Your task to perform on an android device: Do I have any events tomorrow? Image 0: 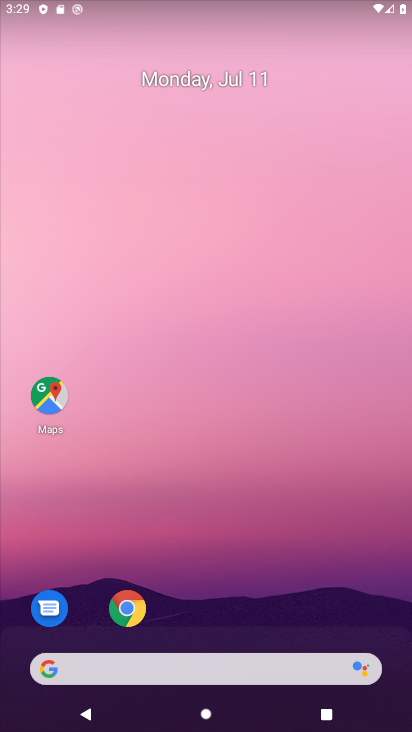
Step 0: drag from (245, 723) to (215, 85)
Your task to perform on an android device: Do I have any events tomorrow? Image 1: 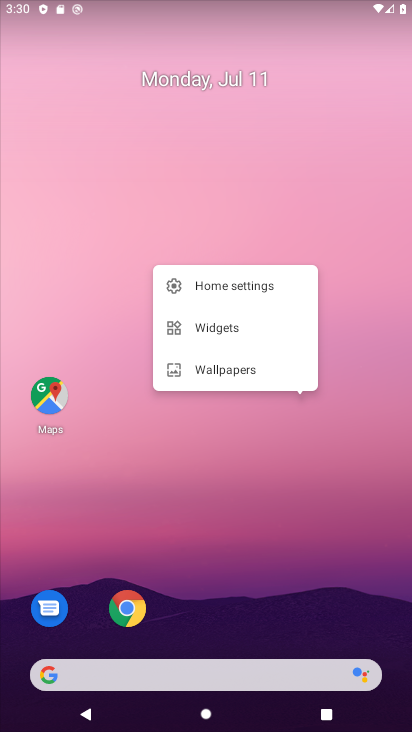
Step 1: drag from (277, 714) to (327, 131)
Your task to perform on an android device: Do I have any events tomorrow? Image 2: 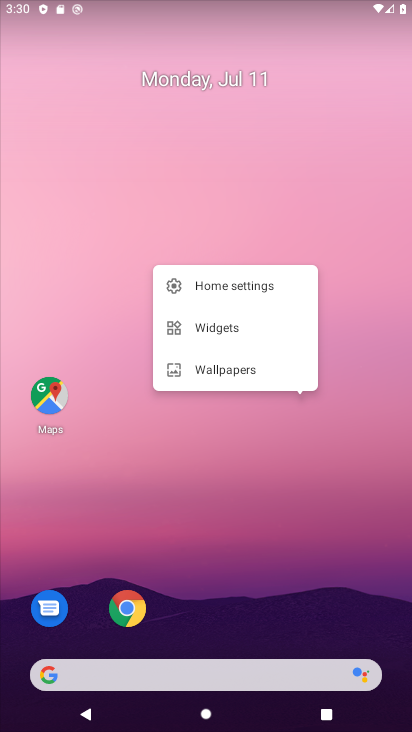
Step 2: click (210, 477)
Your task to perform on an android device: Do I have any events tomorrow? Image 3: 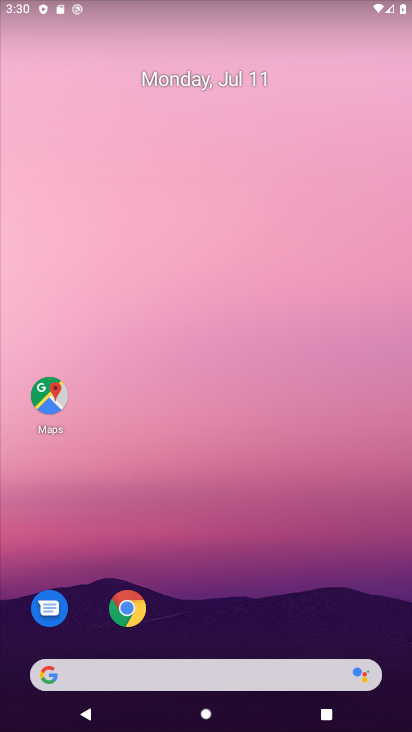
Step 3: click (91, 187)
Your task to perform on an android device: Do I have any events tomorrow? Image 4: 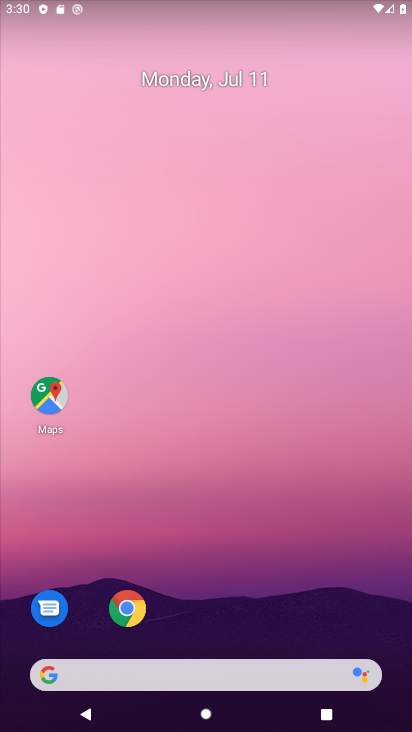
Step 4: drag from (124, 614) to (403, 8)
Your task to perform on an android device: Do I have any events tomorrow? Image 5: 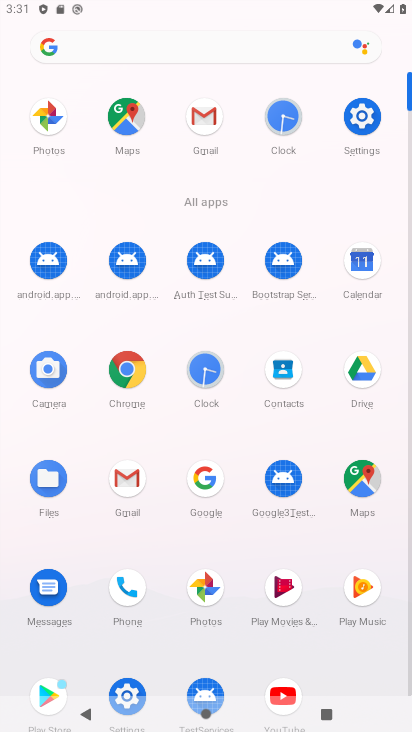
Step 5: click (364, 256)
Your task to perform on an android device: Do I have any events tomorrow? Image 6: 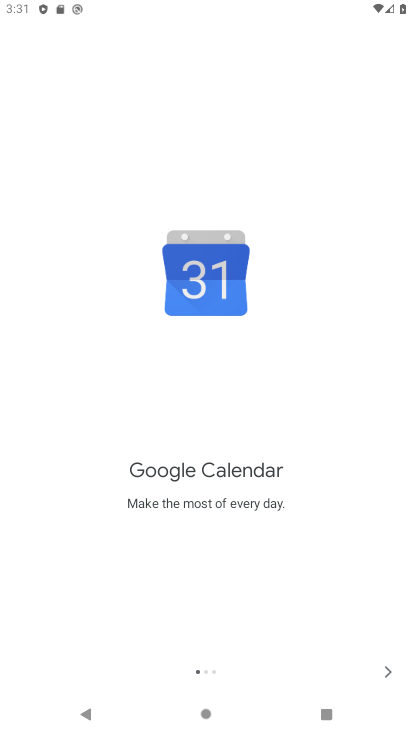
Step 6: click (388, 672)
Your task to perform on an android device: Do I have any events tomorrow? Image 7: 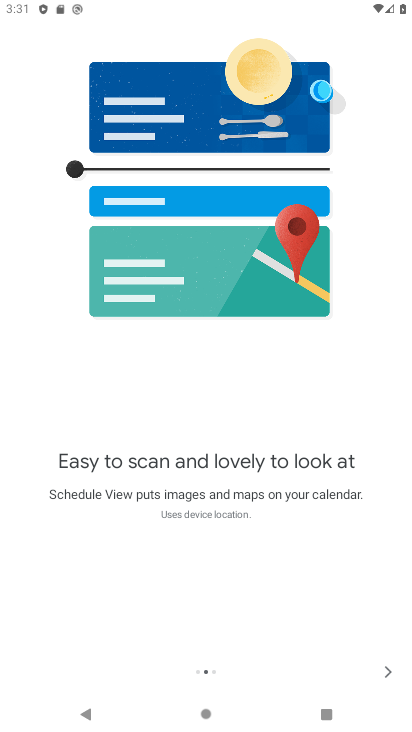
Step 7: click (386, 670)
Your task to perform on an android device: Do I have any events tomorrow? Image 8: 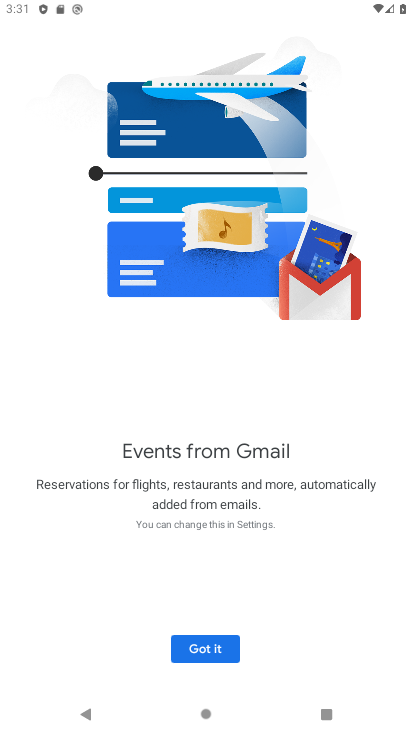
Step 8: click (202, 646)
Your task to perform on an android device: Do I have any events tomorrow? Image 9: 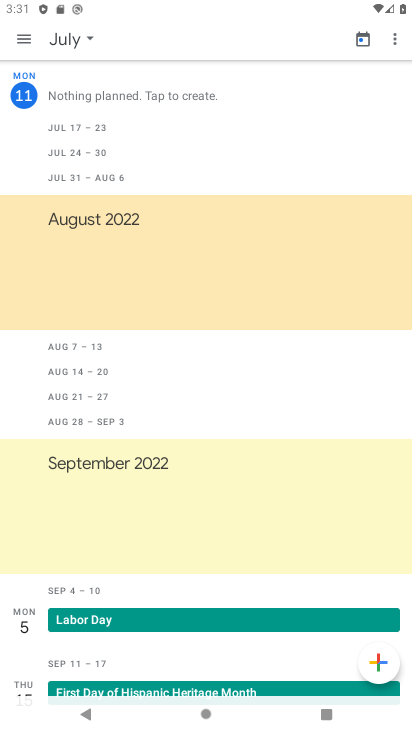
Step 9: click (397, 38)
Your task to perform on an android device: Do I have any events tomorrow? Image 10: 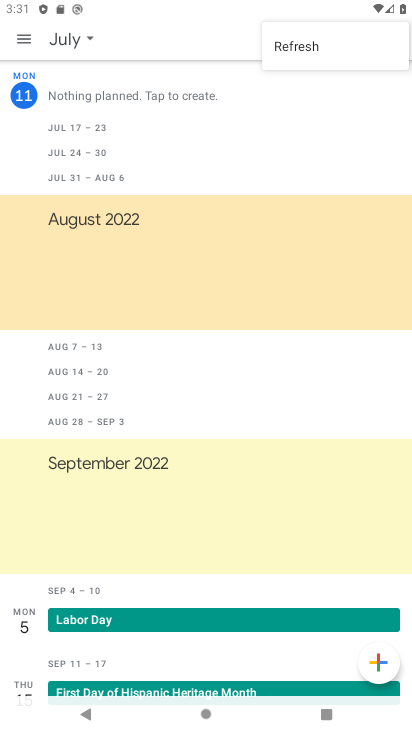
Step 10: click (28, 41)
Your task to perform on an android device: Do I have any events tomorrow? Image 11: 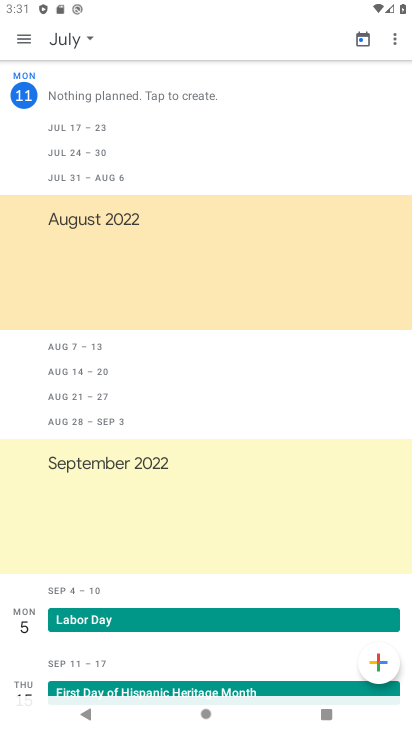
Step 11: click (62, 36)
Your task to perform on an android device: Do I have any events tomorrow? Image 12: 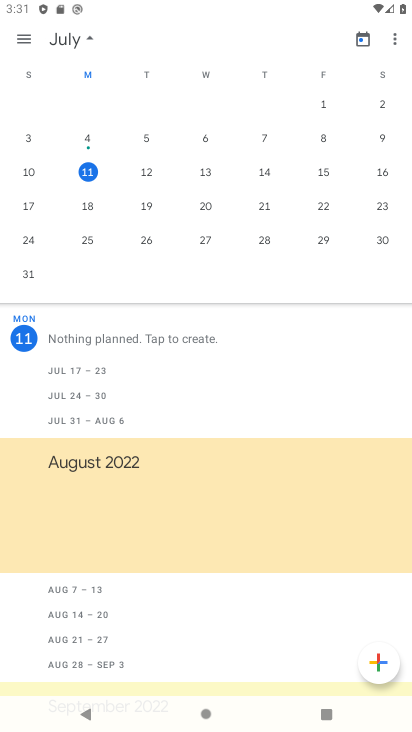
Step 12: click (143, 165)
Your task to perform on an android device: Do I have any events tomorrow? Image 13: 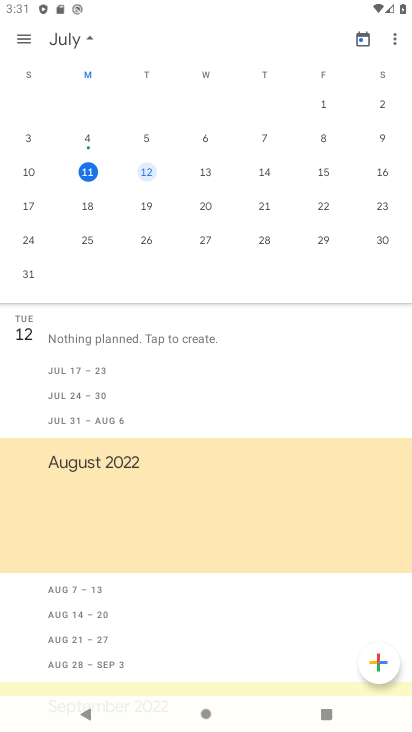
Step 13: task complete